Your task to perform on an android device: Open the calendar and show me this week's events? Image 0: 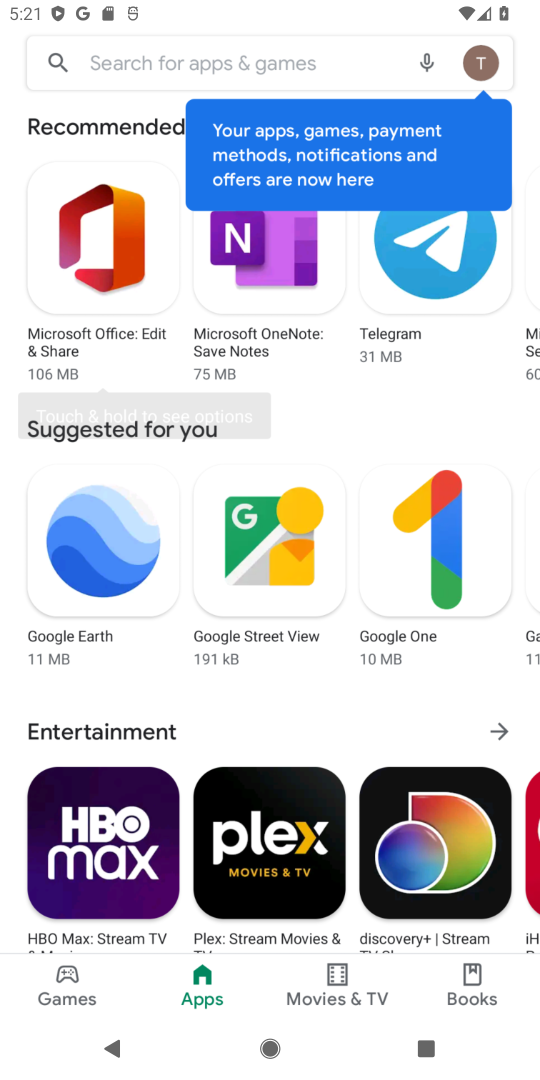
Step 0: press home button
Your task to perform on an android device: Open the calendar and show me this week's events? Image 1: 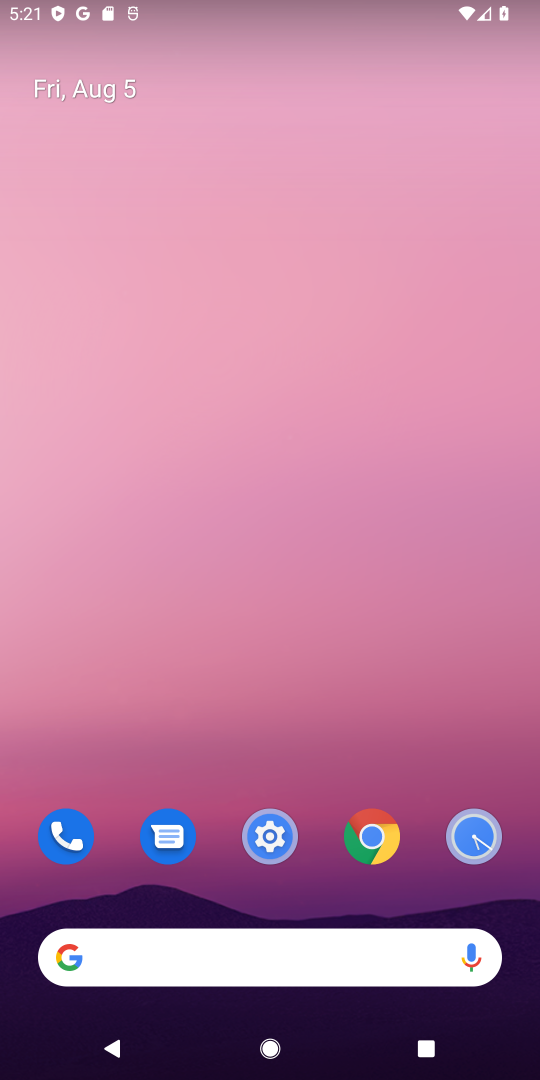
Step 1: drag from (321, 882) to (316, 80)
Your task to perform on an android device: Open the calendar and show me this week's events? Image 2: 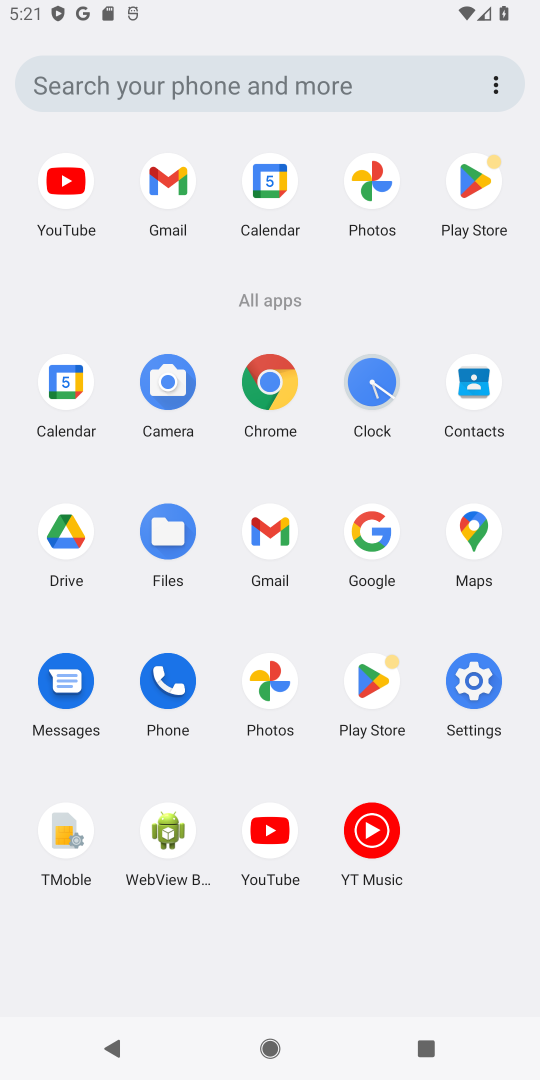
Step 2: click (63, 375)
Your task to perform on an android device: Open the calendar and show me this week's events? Image 3: 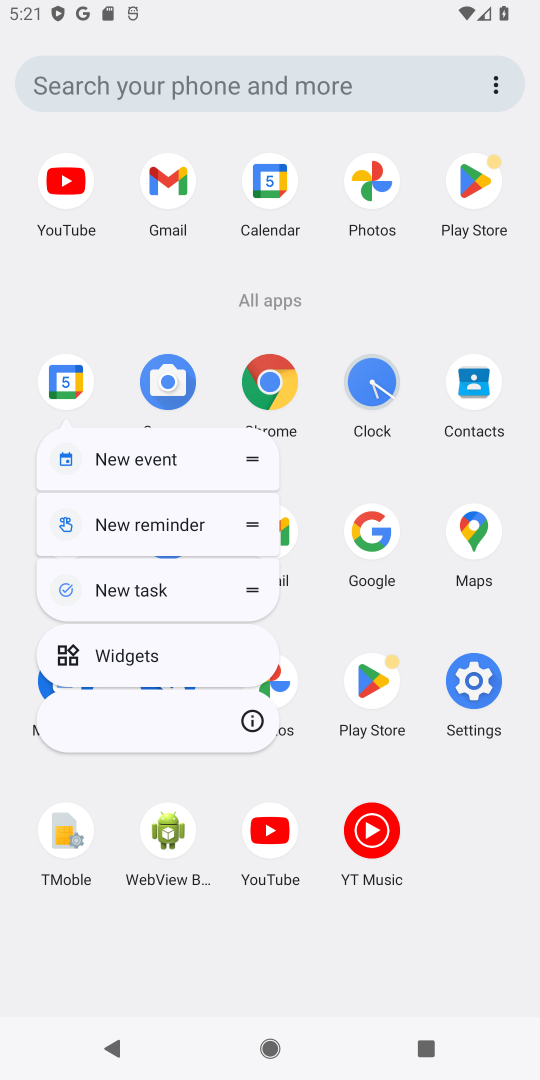
Step 3: click (63, 375)
Your task to perform on an android device: Open the calendar and show me this week's events? Image 4: 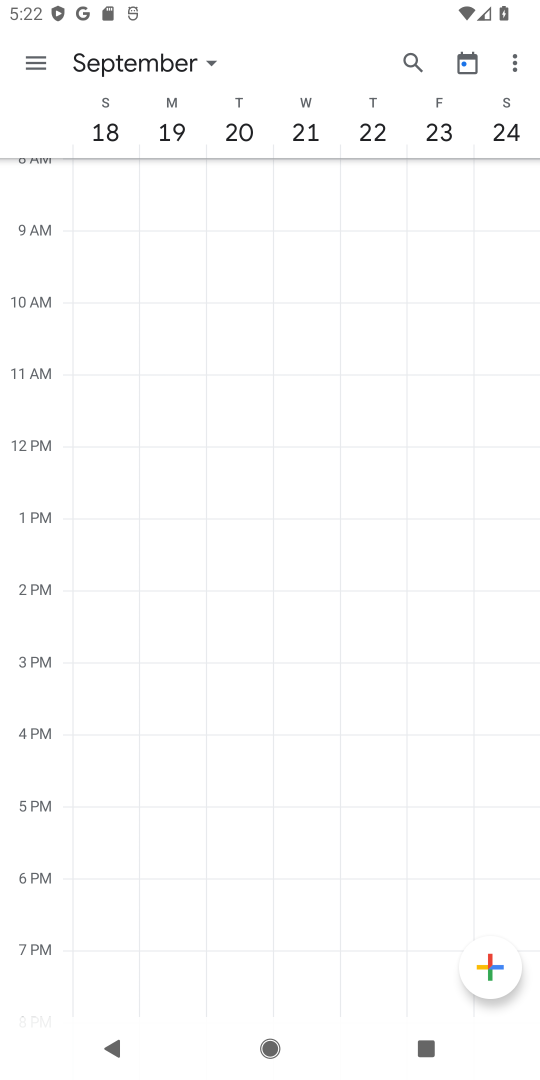
Step 4: task complete